Your task to perform on an android device: Open Google Chrome Image 0: 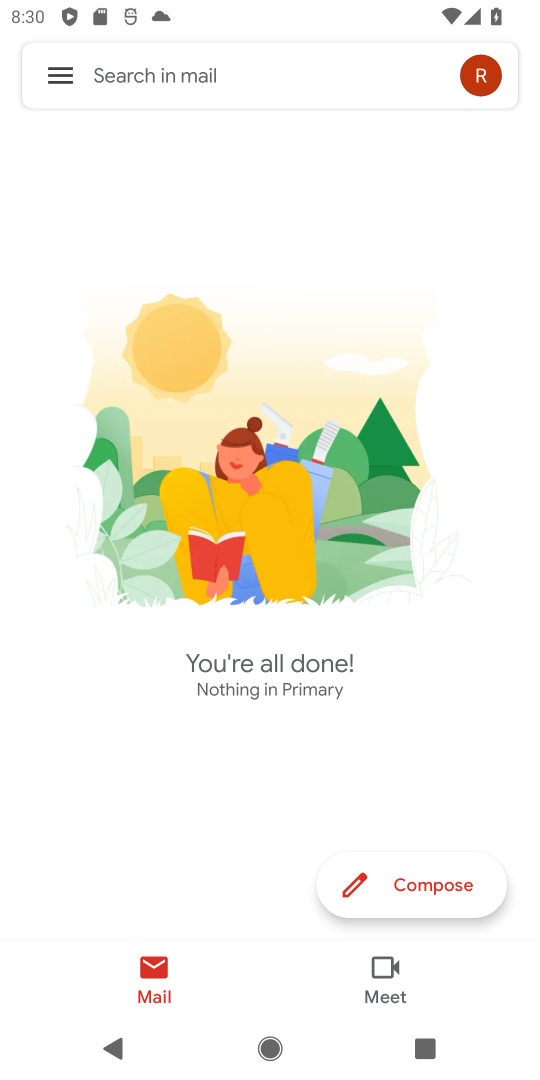
Step 0: press home button
Your task to perform on an android device: Open Google Chrome Image 1: 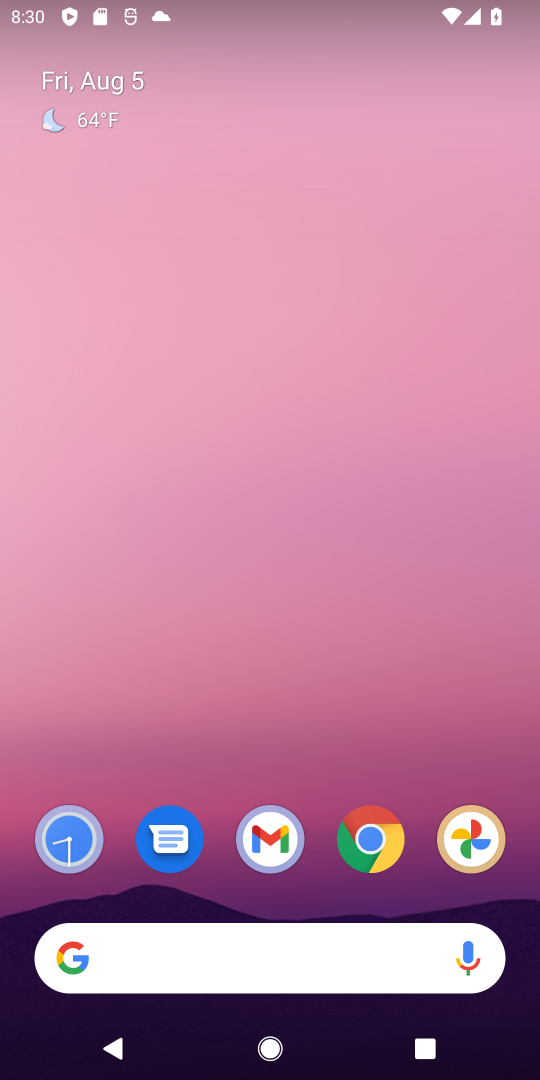
Step 1: click (377, 839)
Your task to perform on an android device: Open Google Chrome Image 2: 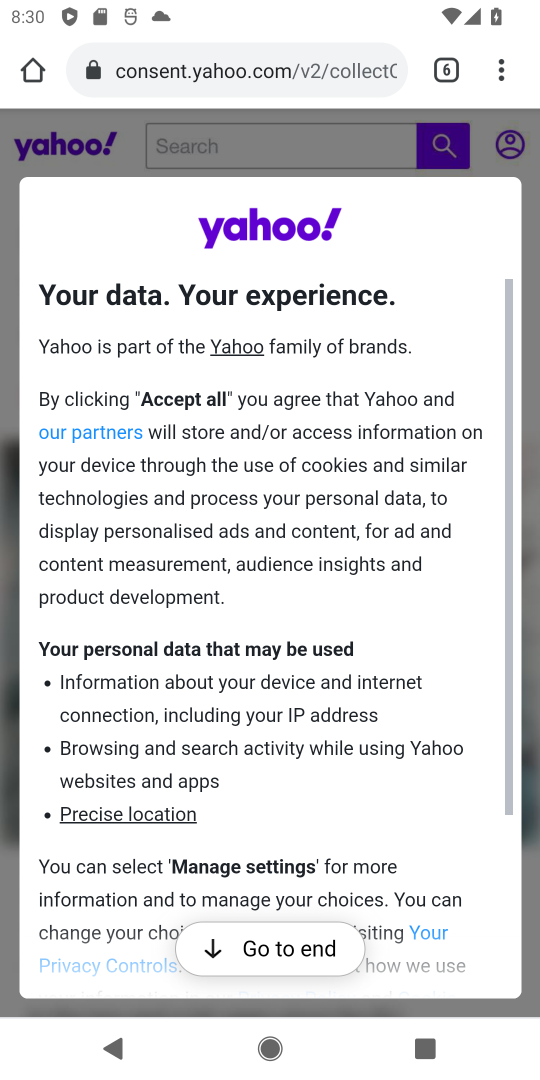
Step 2: task complete